Your task to perform on an android device: find photos in the google photos app Image 0: 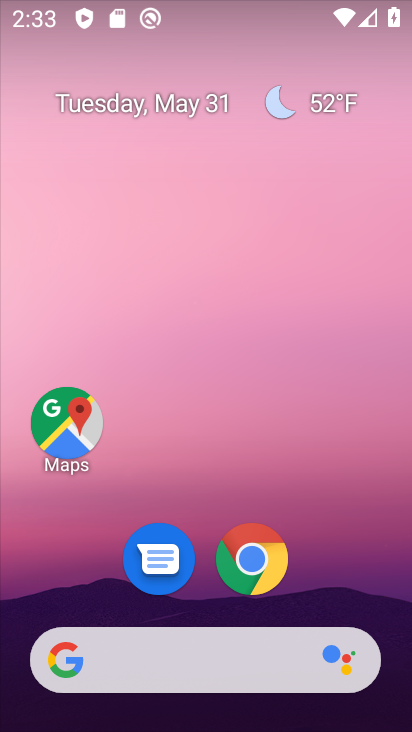
Step 0: drag from (198, 594) to (166, 143)
Your task to perform on an android device: find photos in the google photos app Image 1: 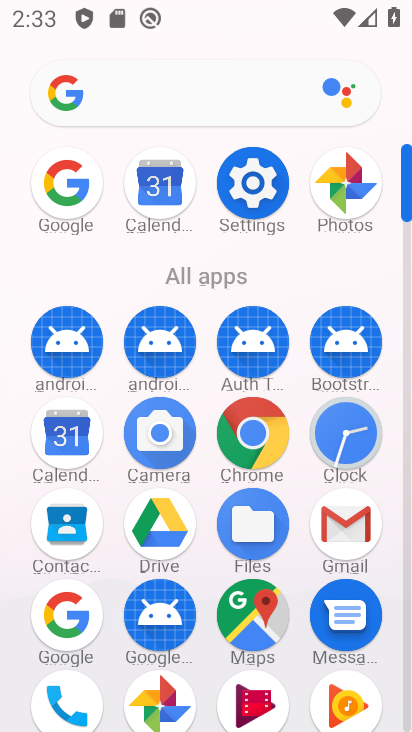
Step 1: click (335, 190)
Your task to perform on an android device: find photos in the google photos app Image 2: 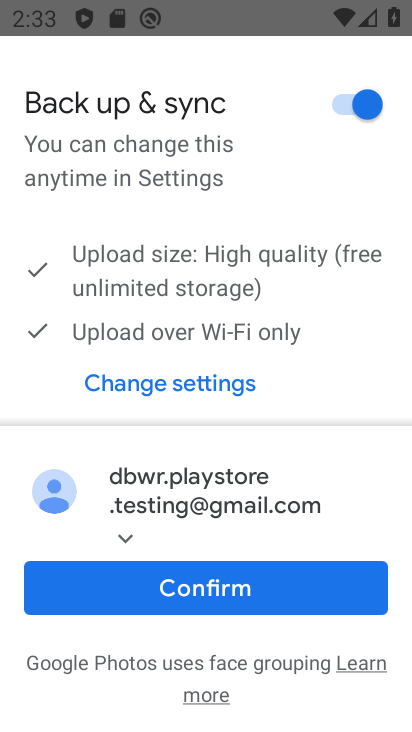
Step 2: click (204, 583)
Your task to perform on an android device: find photos in the google photos app Image 3: 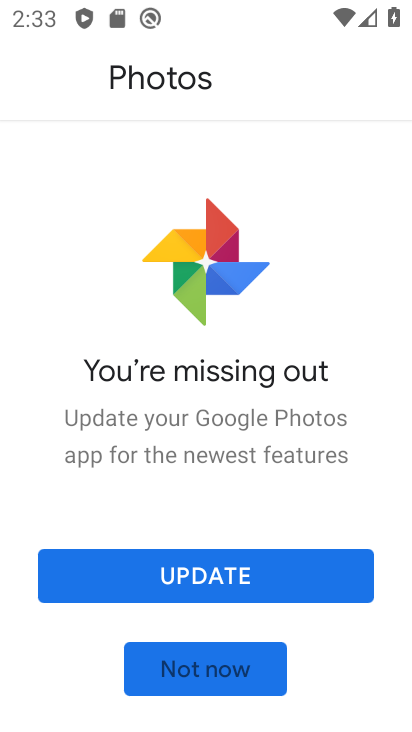
Step 3: click (208, 652)
Your task to perform on an android device: find photos in the google photos app Image 4: 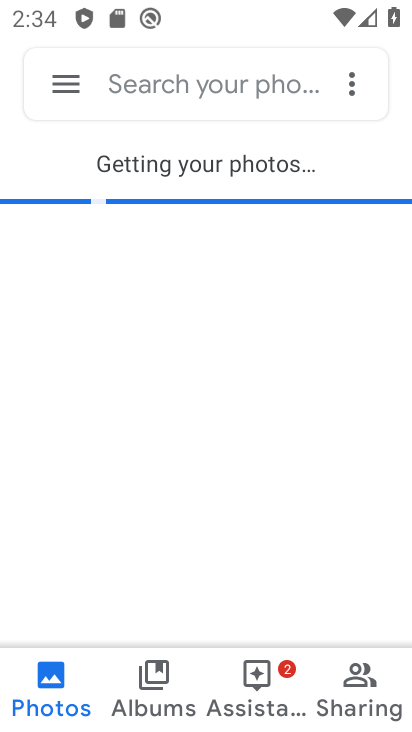
Step 4: click (163, 85)
Your task to perform on an android device: find photos in the google photos app Image 5: 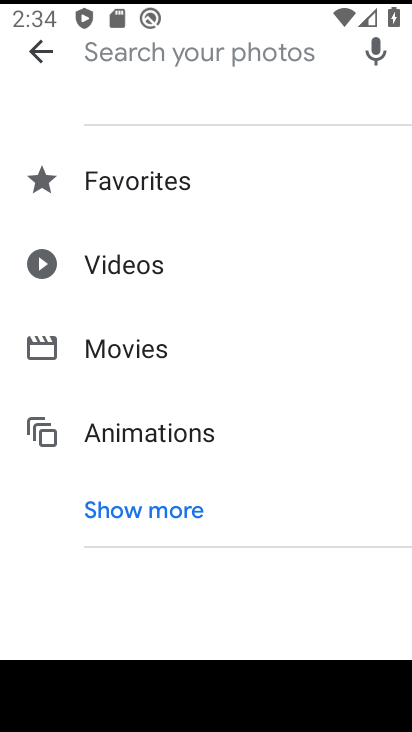
Step 5: type "aaa"
Your task to perform on an android device: find photos in the google photos app Image 6: 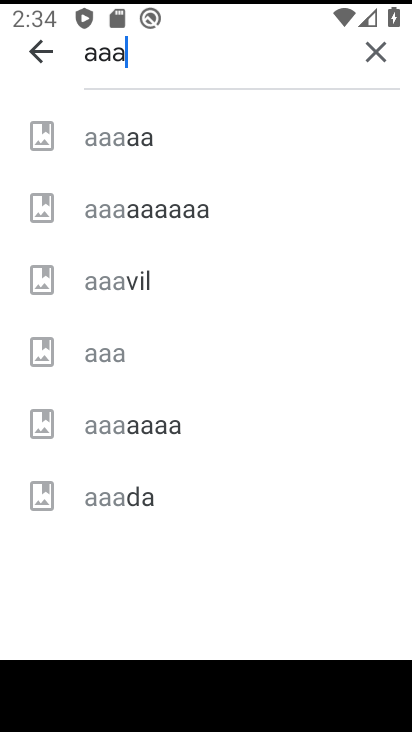
Step 6: click (168, 143)
Your task to perform on an android device: find photos in the google photos app Image 7: 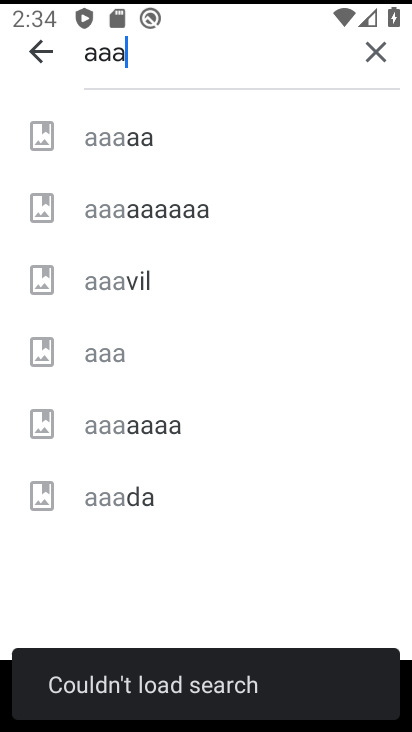
Step 7: task complete